Your task to perform on an android device: check google app version Image 0: 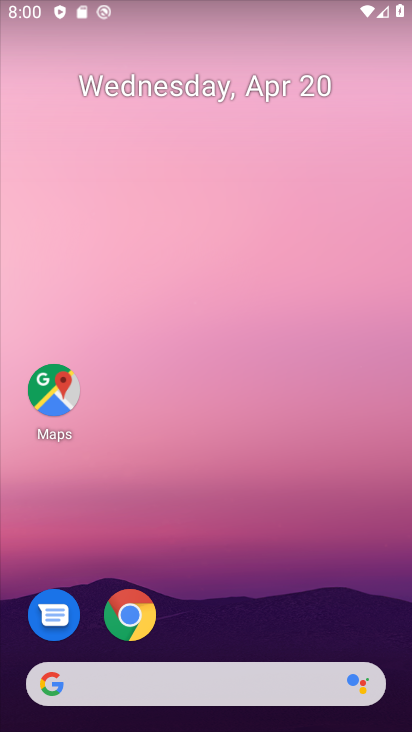
Step 0: drag from (266, 639) to (342, 48)
Your task to perform on an android device: check google app version Image 1: 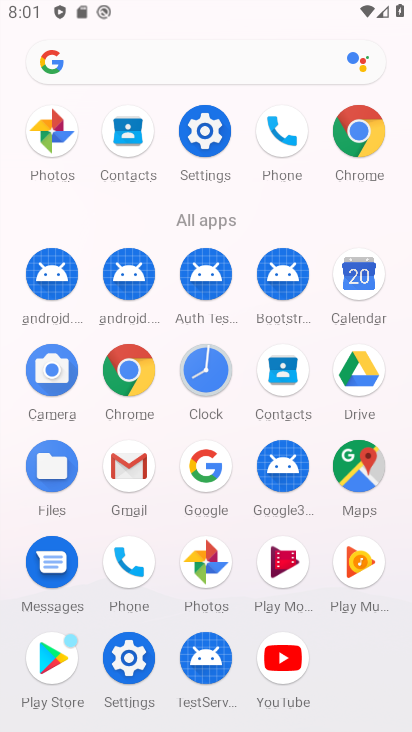
Step 1: click (206, 469)
Your task to perform on an android device: check google app version Image 2: 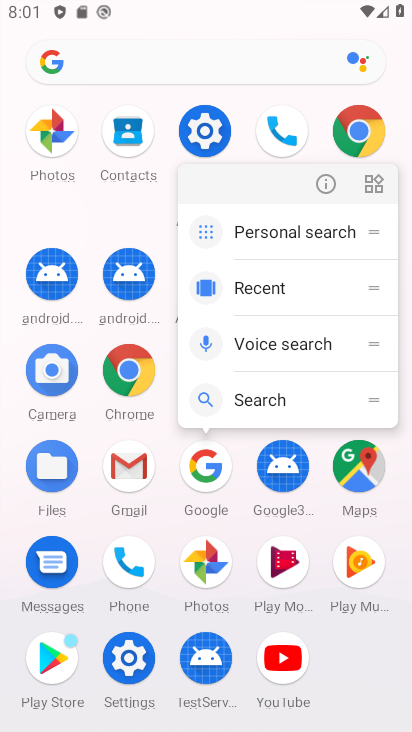
Step 2: click (326, 184)
Your task to perform on an android device: check google app version Image 3: 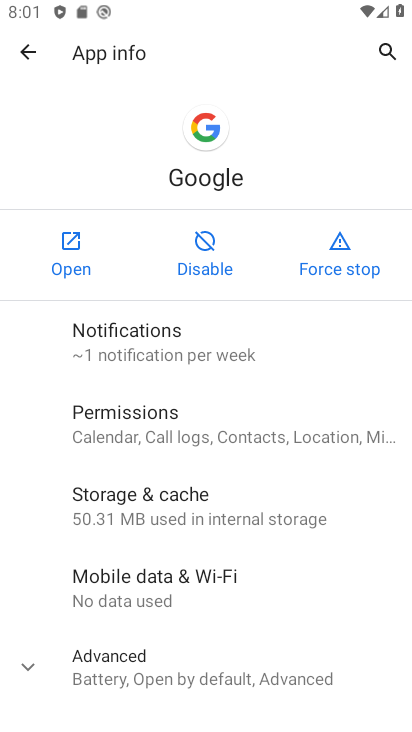
Step 3: drag from (241, 571) to (273, 387)
Your task to perform on an android device: check google app version Image 4: 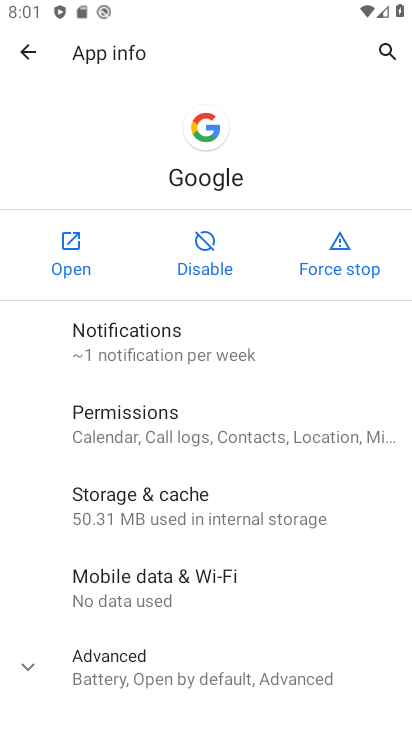
Step 4: click (131, 681)
Your task to perform on an android device: check google app version Image 5: 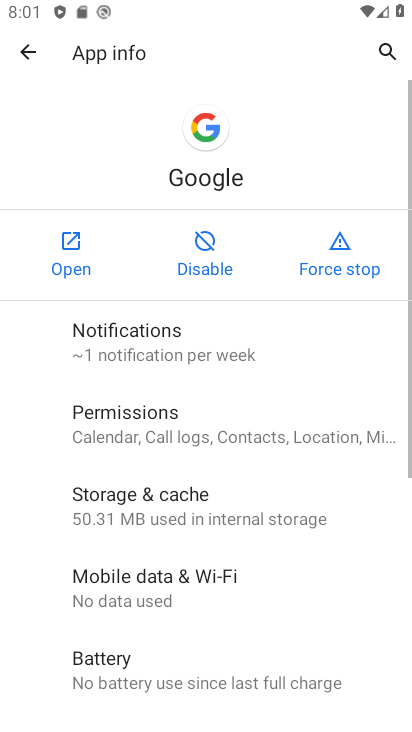
Step 5: task complete